Your task to perform on an android device: toggle improve location accuracy Image 0: 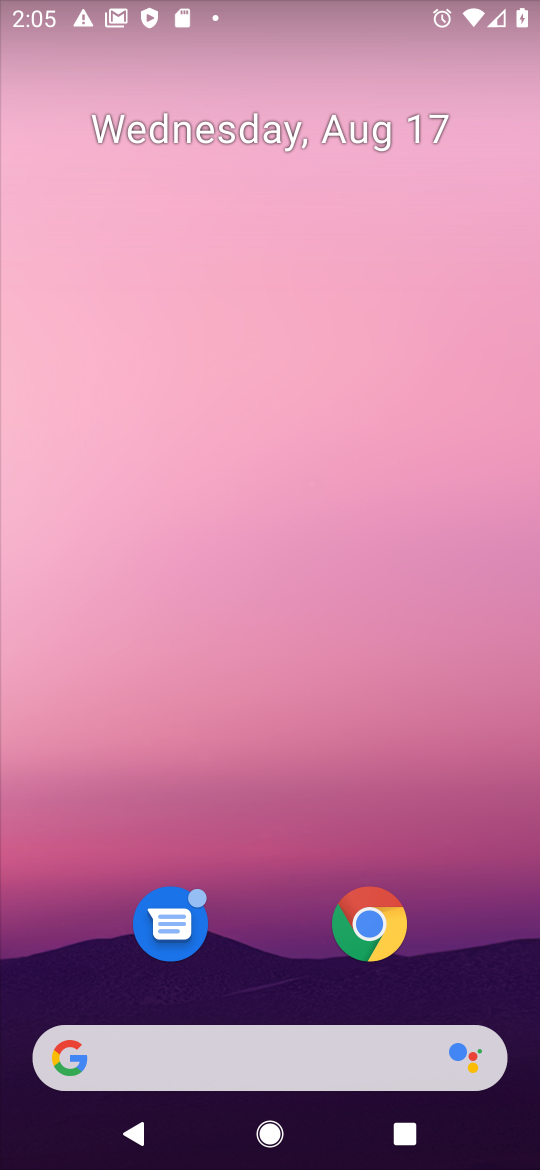
Step 0: drag from (251, 1004) to (151, 67)
Your task to perform on an android device: toggle improve location accuracy Image 1: 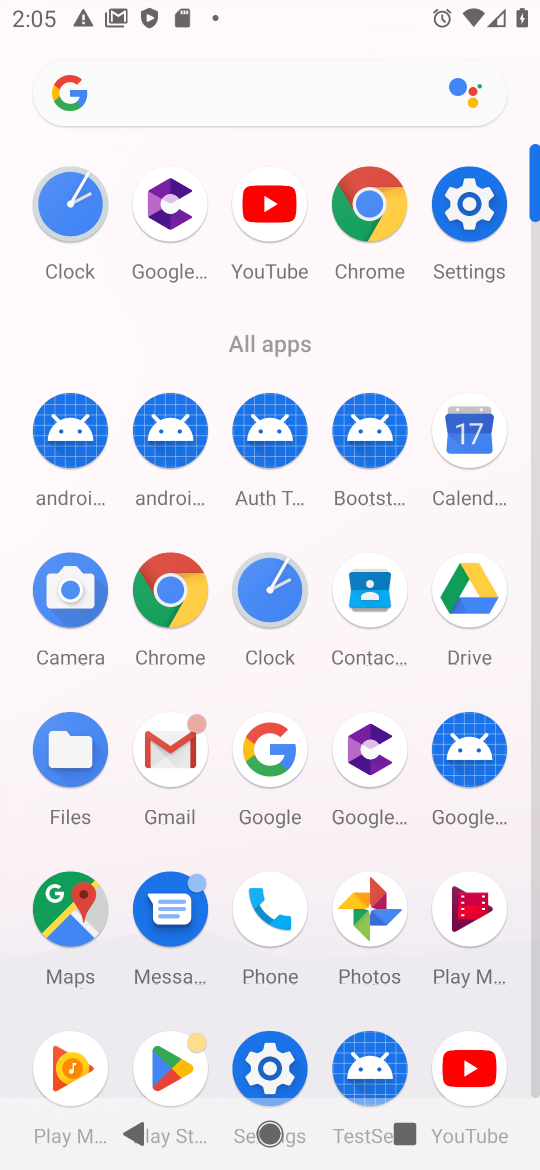
Step 1: click (464, 211)
Your task to perform on an android device: toggle improve location accuracy Image 2: 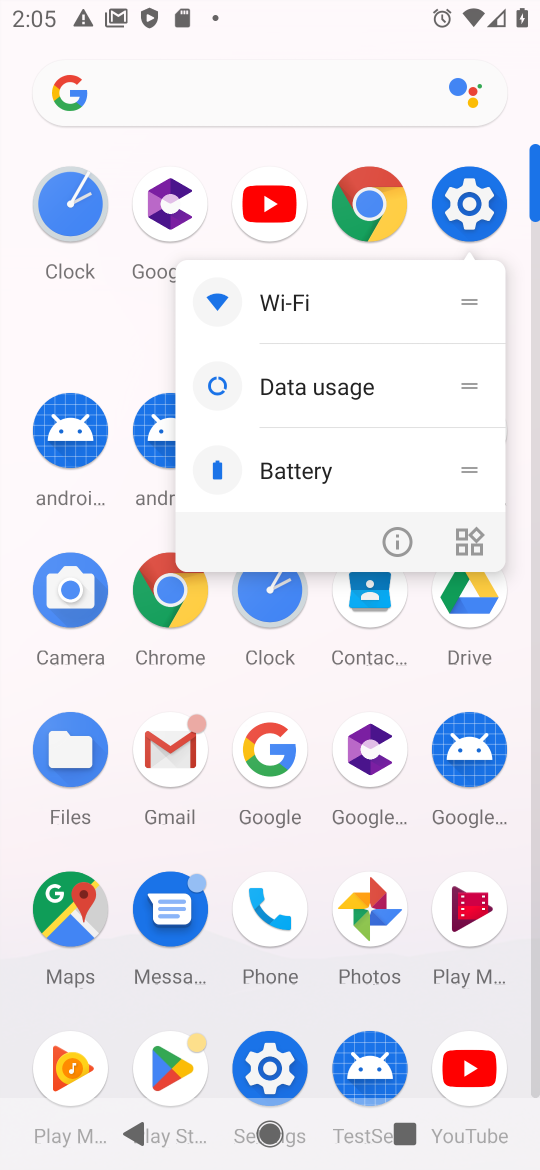
Step 2: click (456, 214)
Your task to perform on an android device: toggle improve location accuracy Image 3: 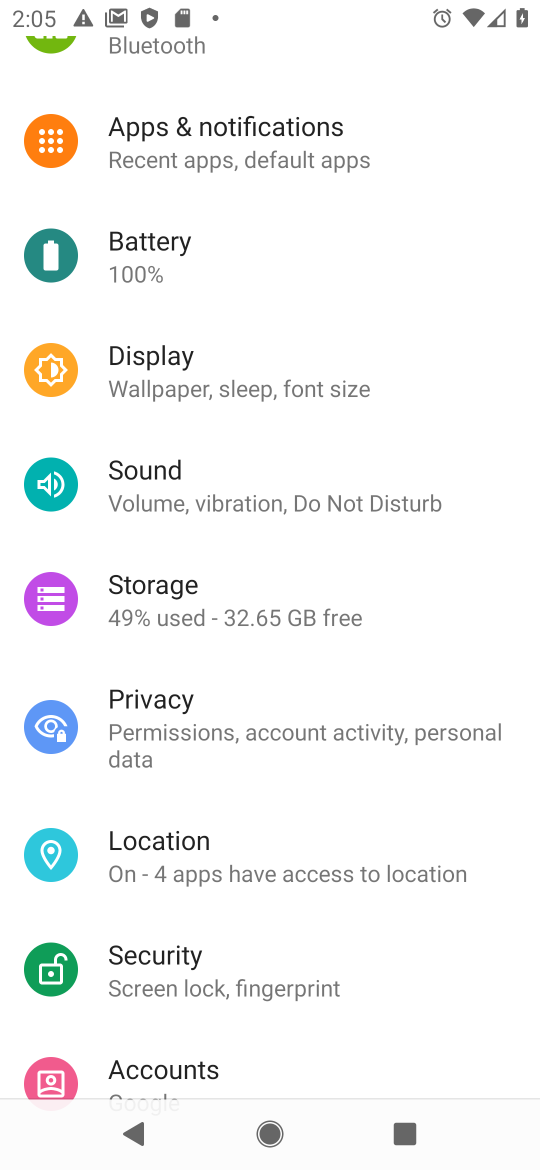
Step 3: click (105, 829)
Your task to perform on an android device: toggle improve location accuracy Image 4: 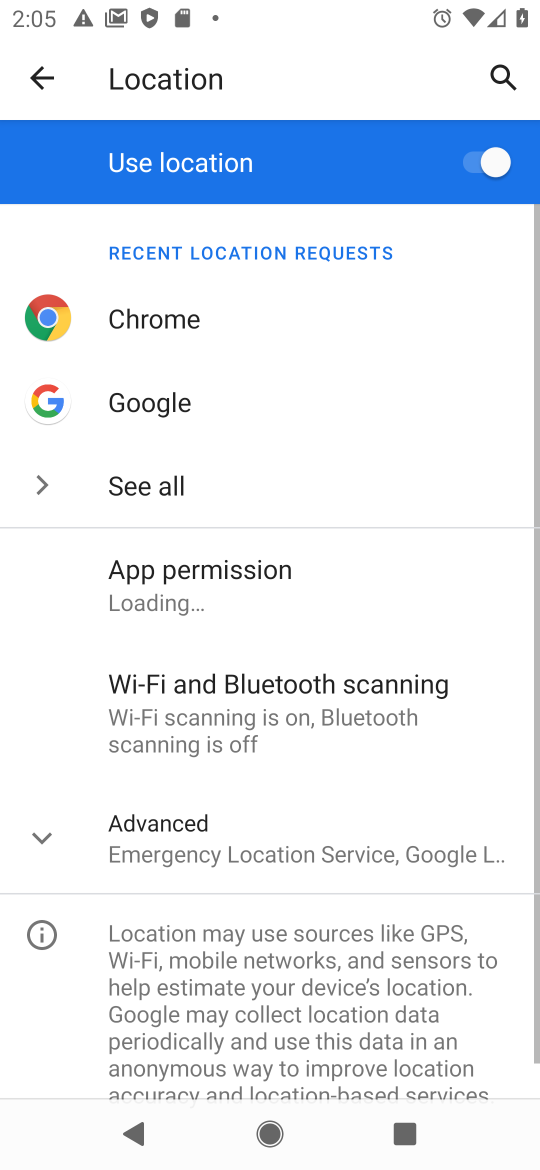
Step 4: click (105, 829)
Your task to perform on an android device: toggle improve location accuracy Image 5: 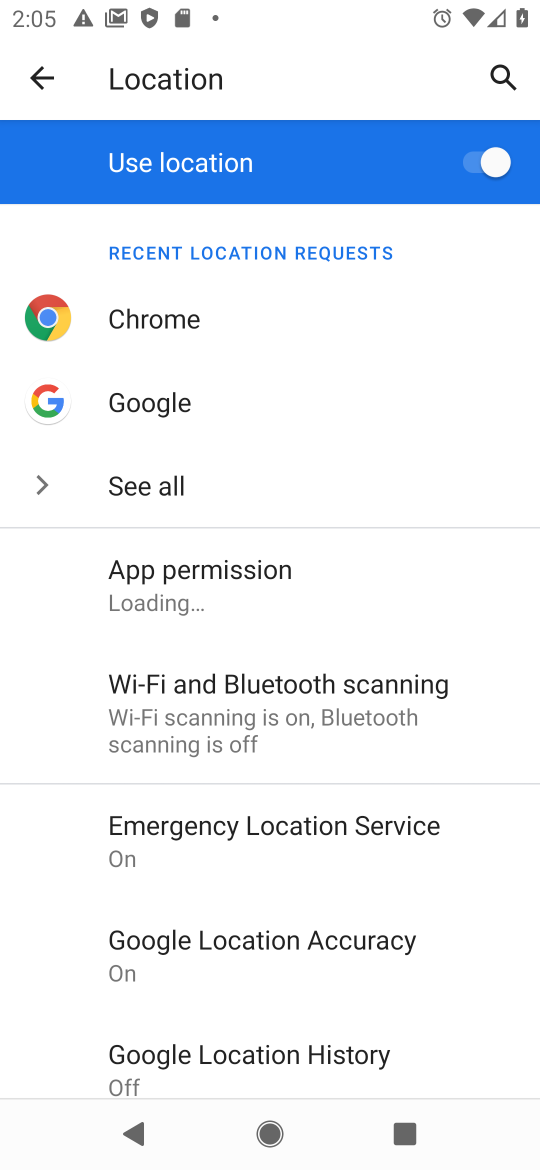
Step 5: click (311, 925)
Your task to perform on an android device: toggle improve location accuracy Image 6: 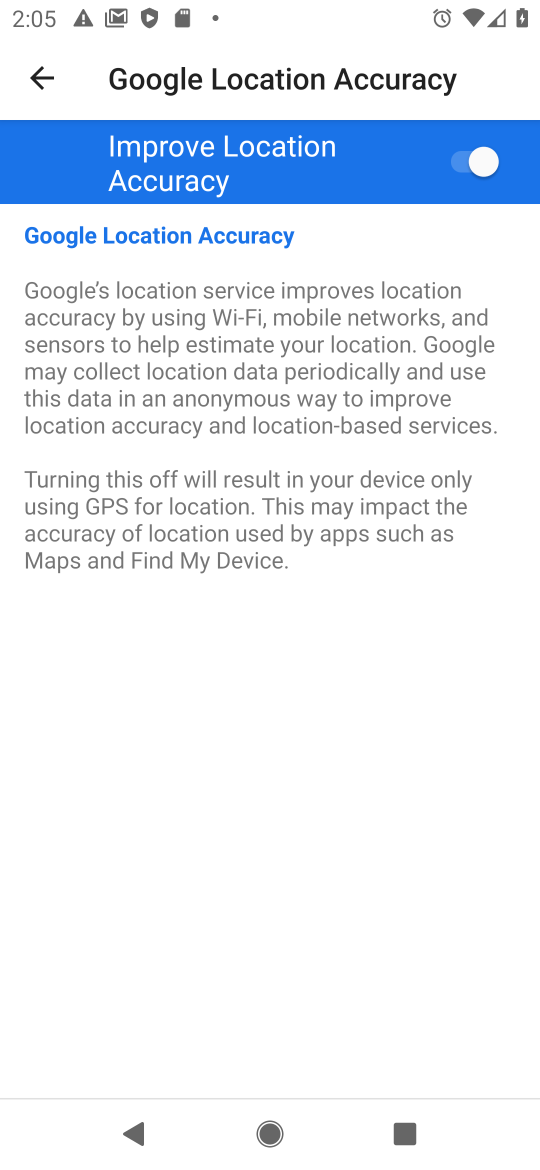
Step 6: click (486, 157)
Your task to perform on an android device: toggle improve location accuracy Image 7: 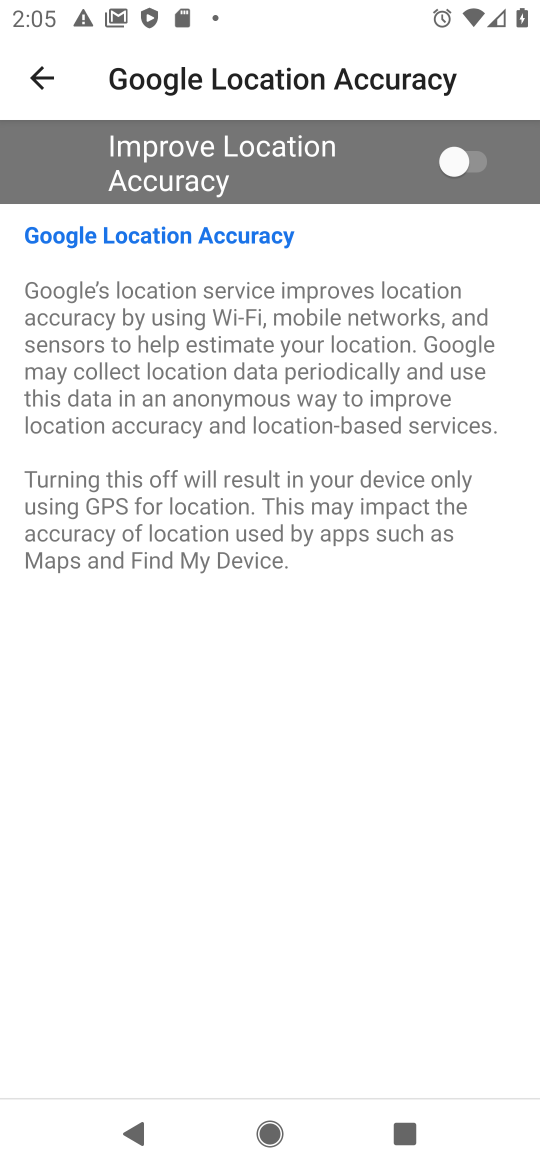
Step 7: task complete